Your task to perform on an android device: toggle data saver in the chrome app Image 0: 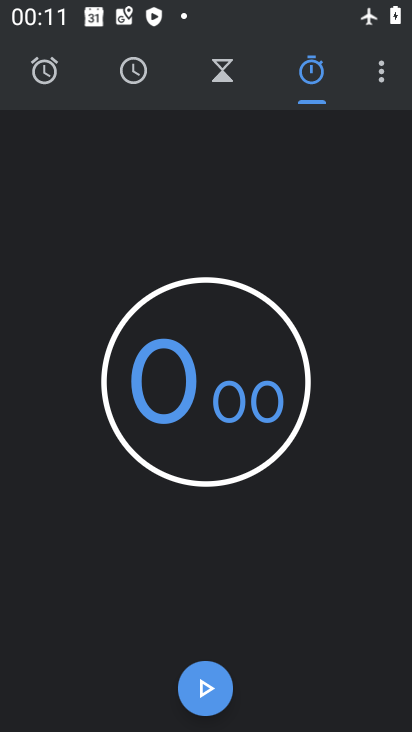
Step 0: press home button
Your task to perform on an android device: toggle data saver in the chrome app Image 1: 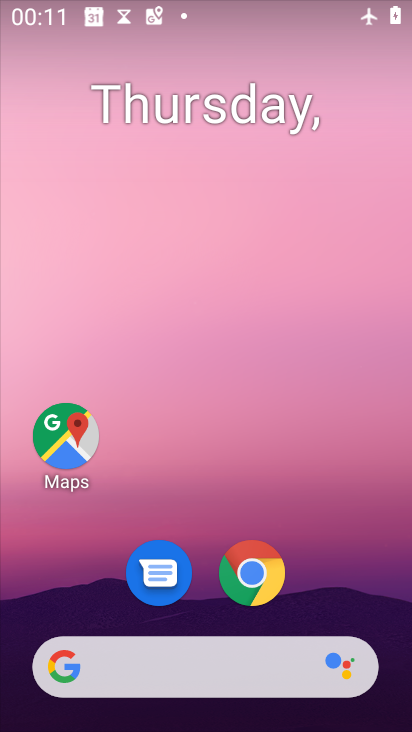
Step 1: click (253, 568)
Your task to perform on an android device: toggle data saver in the chrome app Image 2: 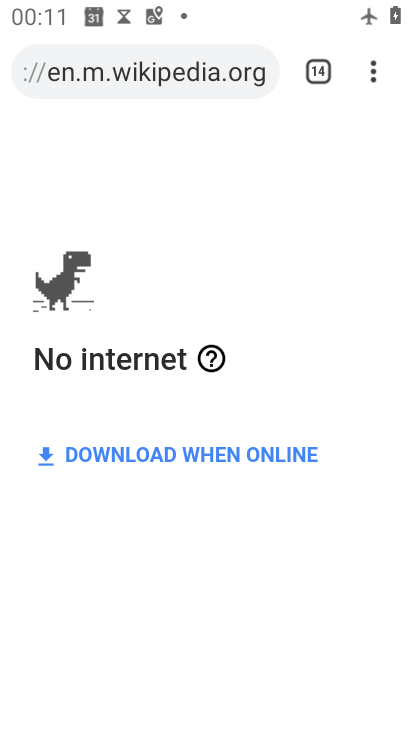
Step 2: click (368, 73)
Your task to perform on an android device: toggle data saver in the chrome app Image 3: 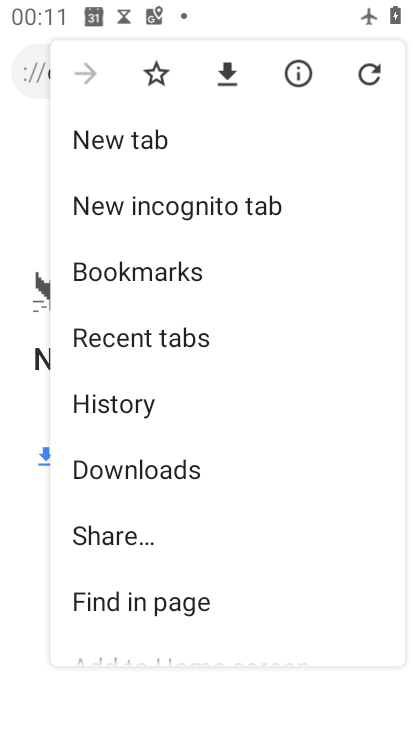
Step 3: drag from (224, 595) to (251, 210)
Your task to perform on an android device: toggle data saver in the chrome app Image 4: 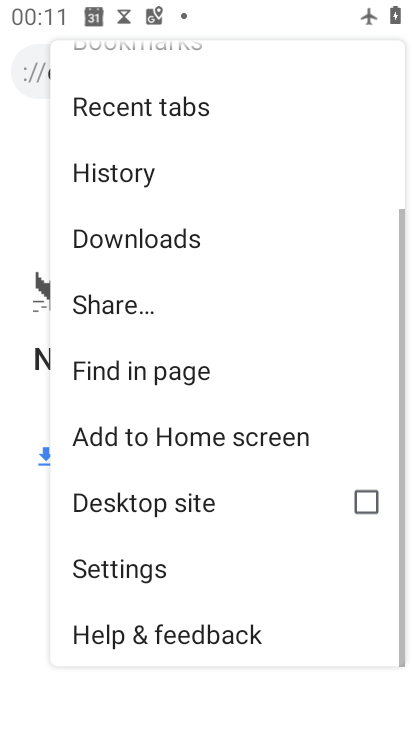
Step 4: click (173, 564)
Your task to perform on an android device: toggle data saver in the chrome app Image 5: 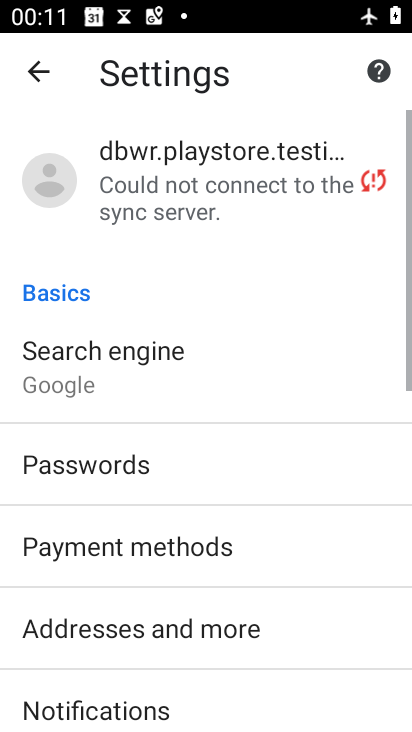
Step 5: drag from (175, 585) to (252, 171)
Your task to perform on an android device: toggle data saver in the chrome app Image 6: 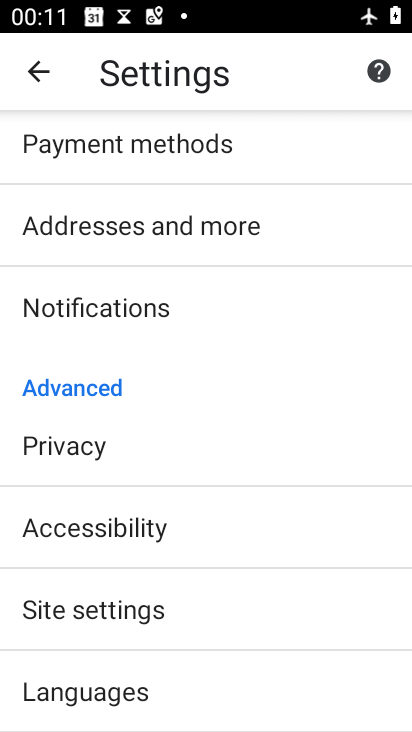
Step 6: drag from (125, 684) to (207, 357)
Your task to perform on an android device: toggle data saver in the chrome app Image 7: 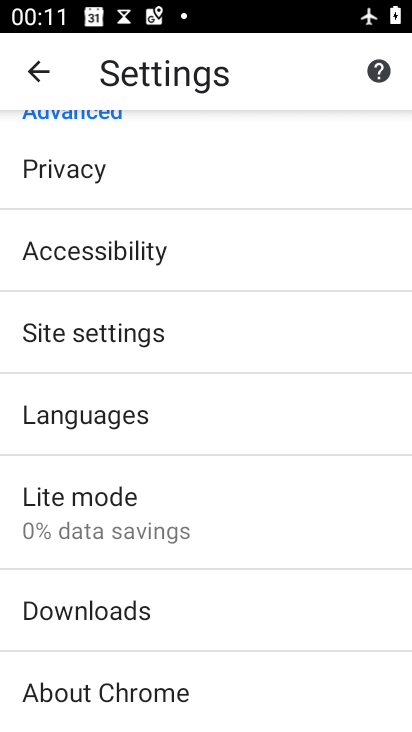
Step 7: click (140, 495)
Your task to perform on an android device: toggle data saver in the chrome app Image 8: 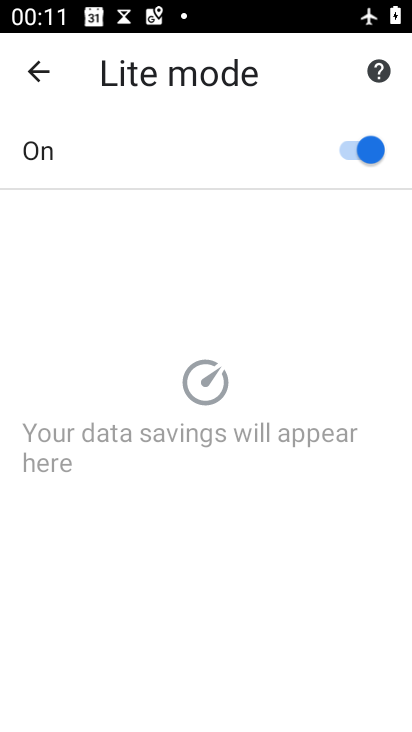
Step 8: click (346, 145)
Your task to perform on an android device: toggle data saver in the chrome app Image 9: 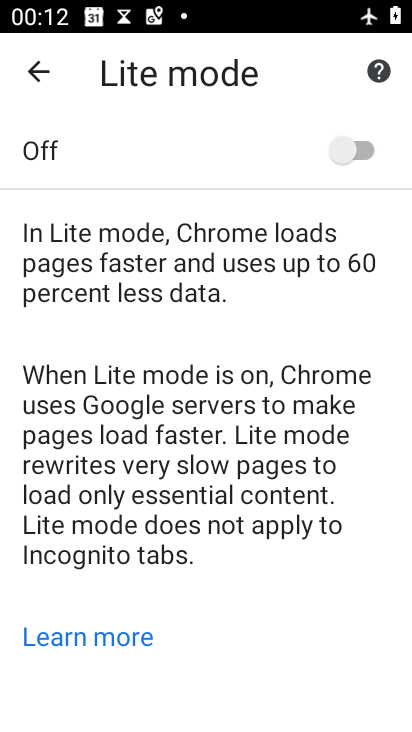
Step 9: task complete